Your task to perform on an android device: set the timer Image 0: 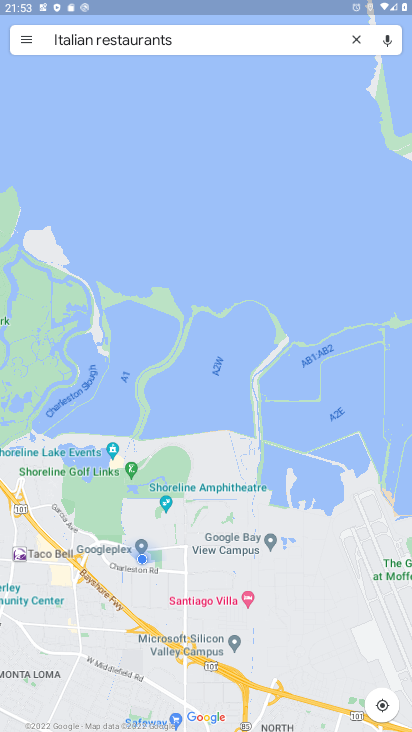
Step 0: press home button
Your task to perform on an android device: set the timer Image 1: 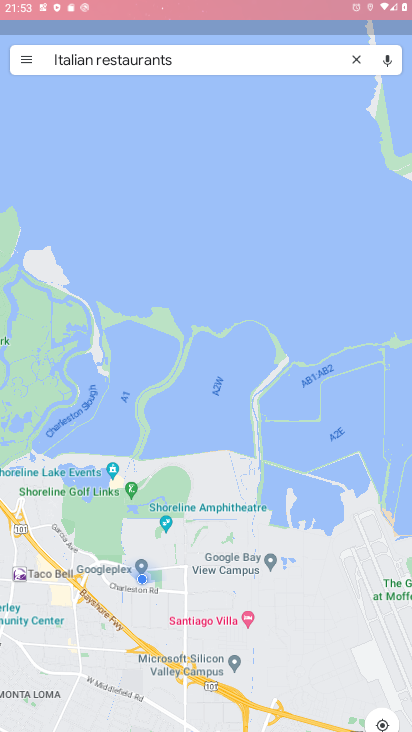
Step 1: drag from (213, 603) to (262, 90)
Your task to perform on an android device: set the timer Image 2: 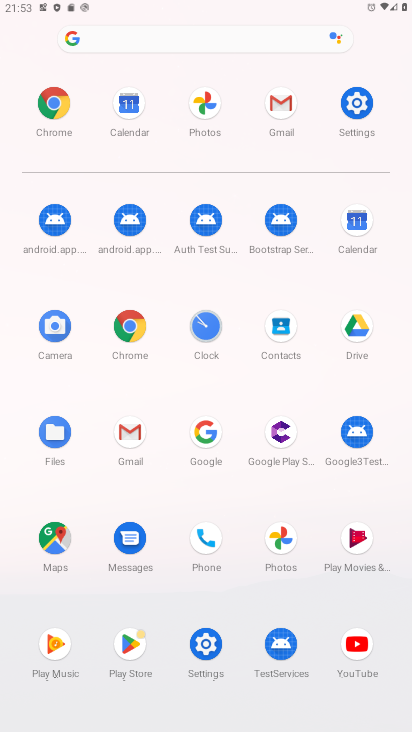
Step 2: click (199, 330)
Your task to perform on an android device: set the timer Image 3: 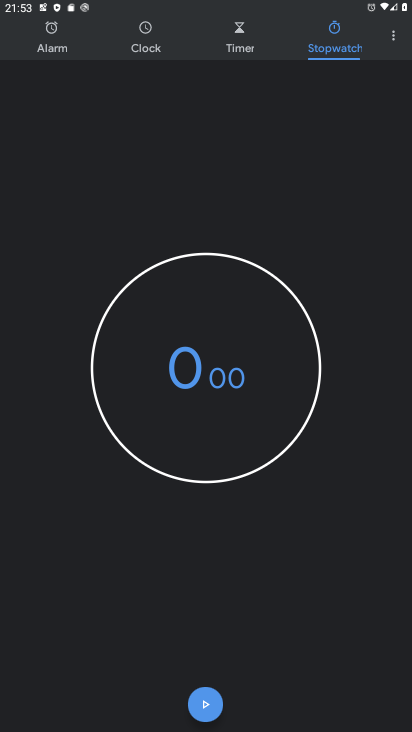
Step 3: click (397, 34)
Your task to perform on an android device: set the timer Image 4: 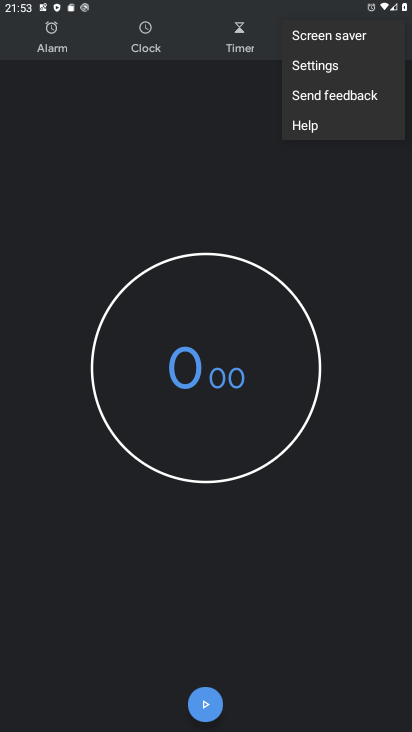
Step 4: click (340, 67)
Your task to perform on an android device: set the timer Image 5: 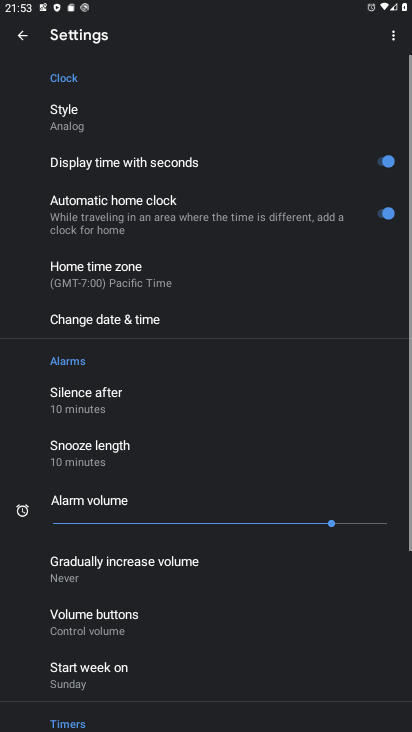
Step 5: click (18, 33)
Your task to perform on an android device: set the timer Image 6: 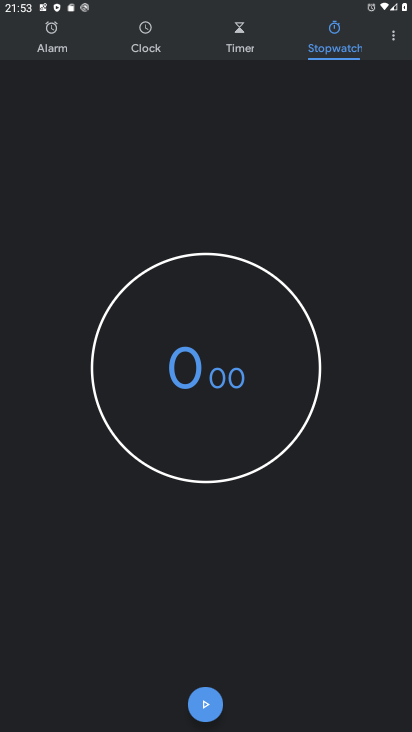
Step 6: click (241, 38)
Your task to perform on an android device: set the timer Image 7: 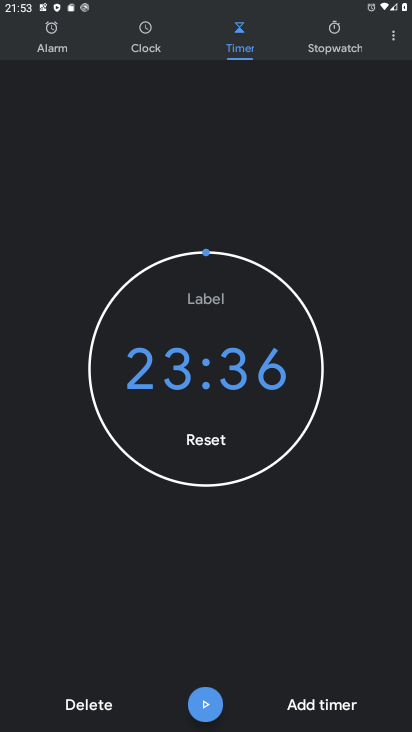
Step 7: drag from (256, 407) to (276, 190)
Your task to perform on an android device: set the timer Image 8: 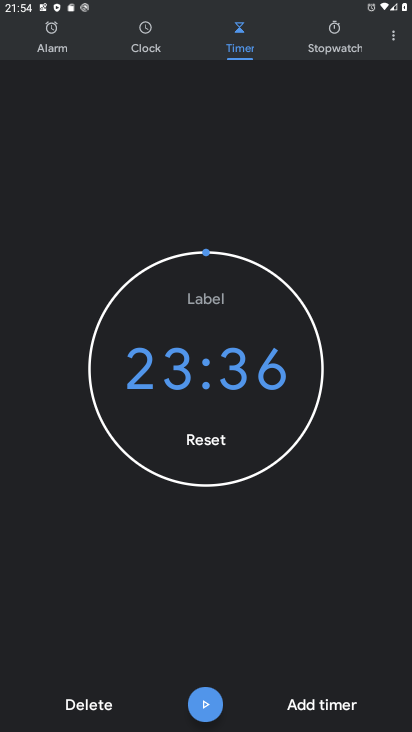
Step 8: click (84, 707)
Your task to perform on an android device: set the timer Image 9: 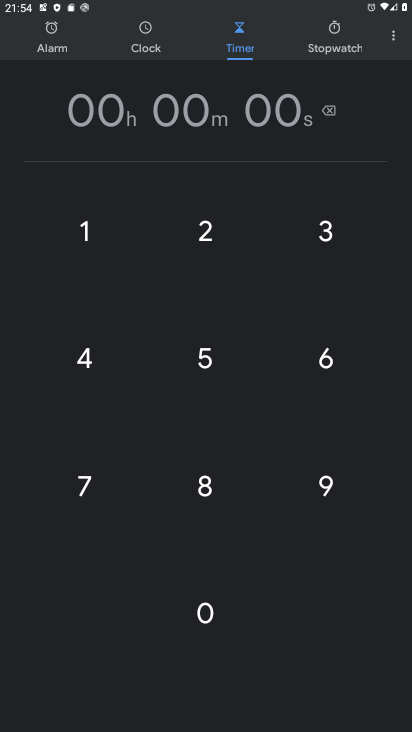
Step 9: click (196, 478)
Your task to perform on an android device: set the timer Image 10: 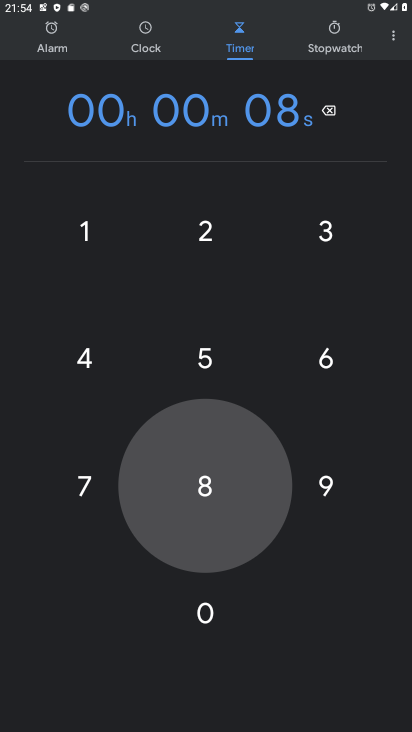
Step 10: click (238, 333)
Your task to perform on an android device: set the timer Image 11: 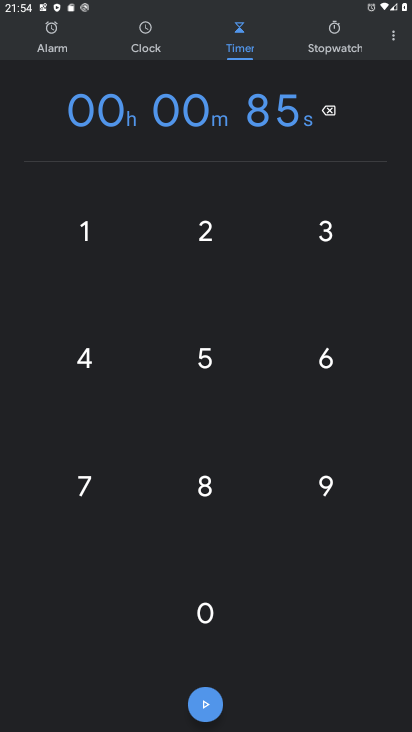
Step 11: click (201, 712)
Your task to perform on an android device: set the timer Image 12: 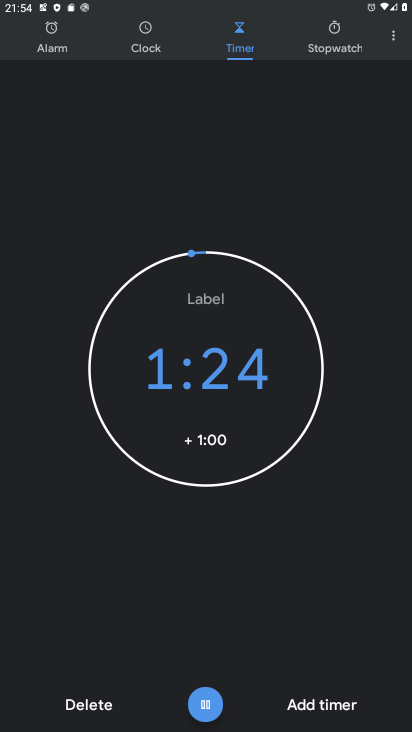
Step 12: task complete